Your task to perform on an android device: stop showing notifications on the lock screen Image 0: 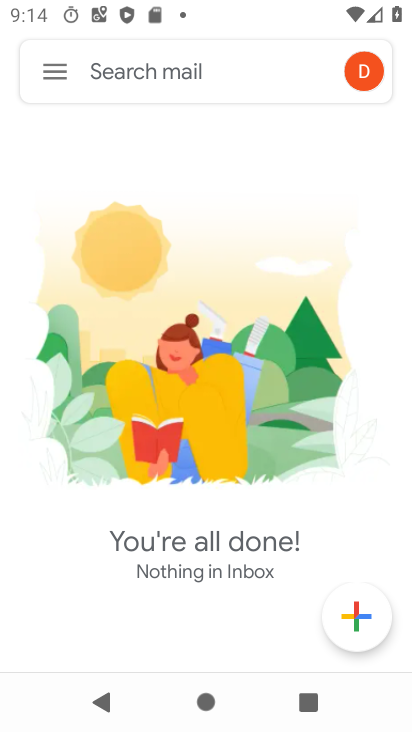
Step 0: press home button
Your task to perform on an android device: stop showing notifications on the lock screen Image 1: 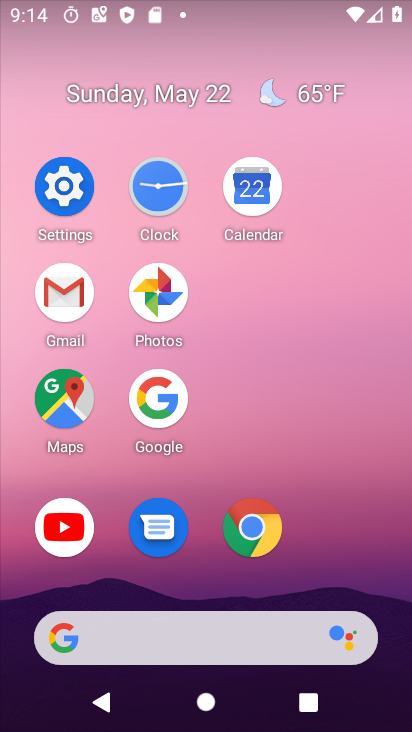
Step 1: click (71, 202)
Your task to perform on an android device: stop showing notifications on the lock screen Image 2: 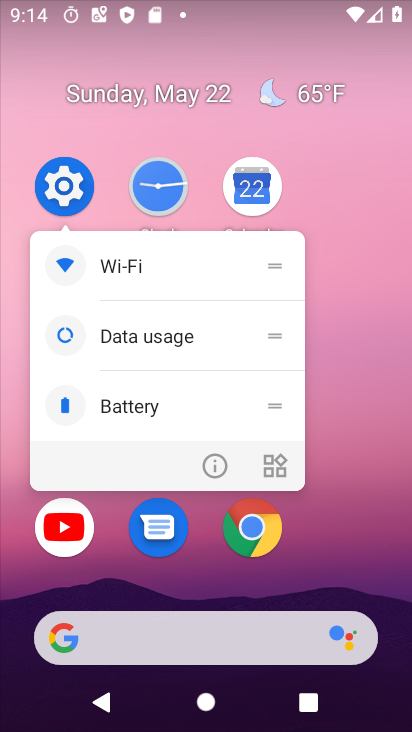
Step 2: click (58, 181)
Your task to perform on an android device: stop showing notifications on the lock screen Image 3: 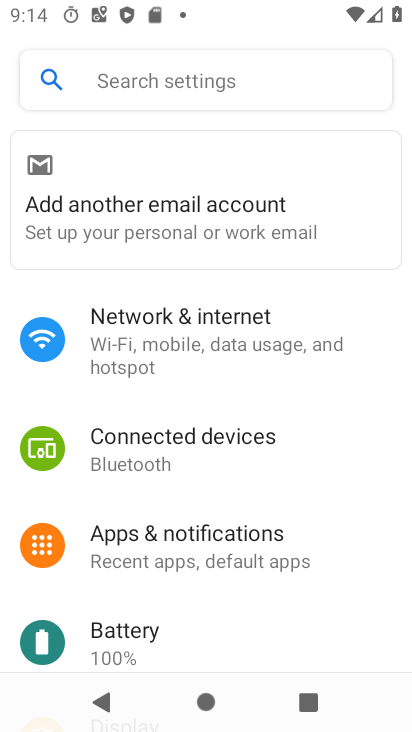
Step 3: drag from (215, 484) to (268, 169)
Your task to perform on an android device: stop showing notifications on the lock screen Image 4: 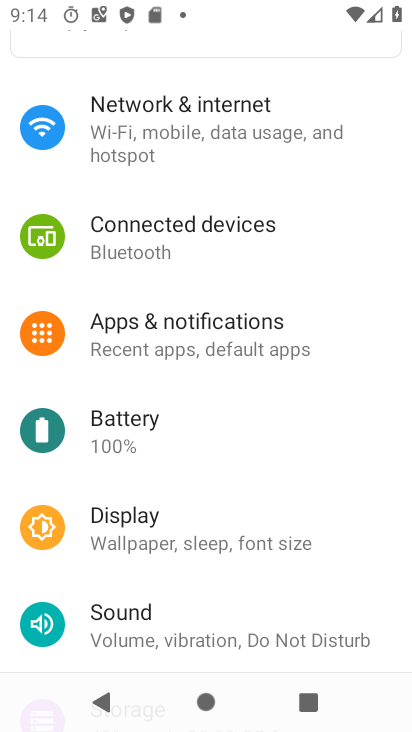
Step 4: click (219, 320)
Your task to perform on an android device: stop showing notifications on the lock screen Image 5: 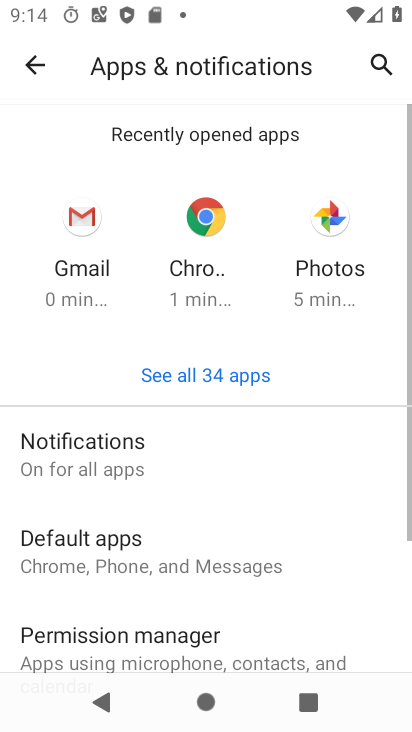
Step 5: click (132, 463)
Your task to perform on an android device: stop showing notifications on the lock screen Image 6: 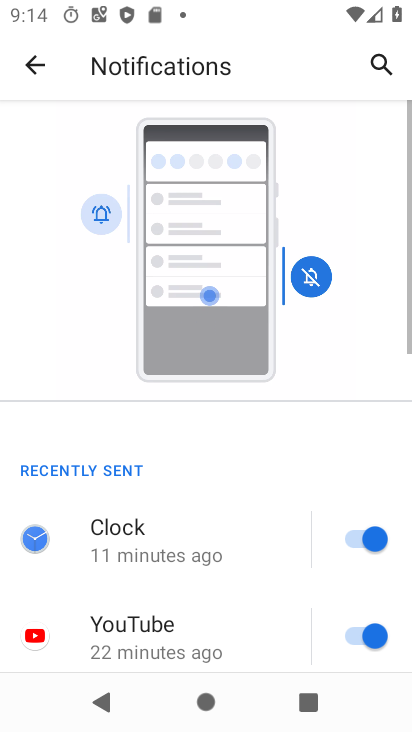
Step 6: click (198, 108)
Your task to perform on an android device: stop showing notifications on the lock screen Image 7: 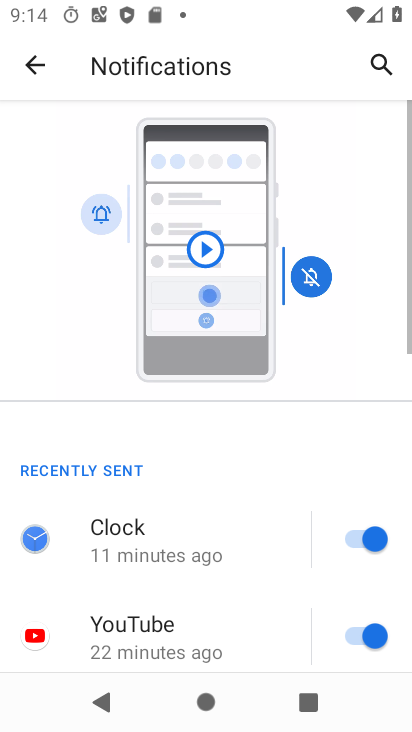
Step 7: drag from (200, 572) to (267, 233)
Your task to perform on an android device: stop showing notifications on the lock screen Image 8: 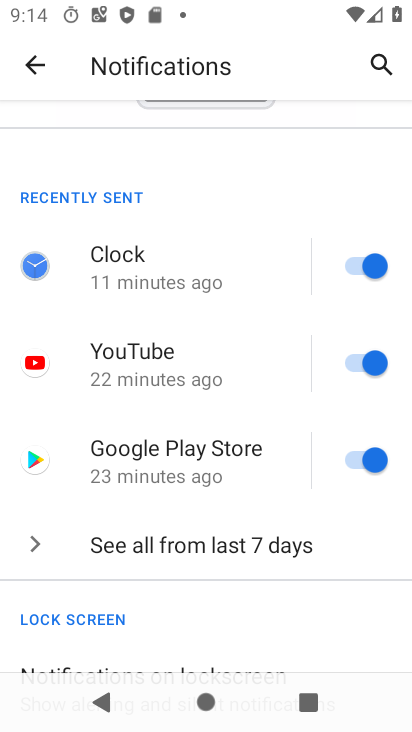
Step 8: drag from (197, 577) to (245, 245)
Your task to perform on an android device: stop showing notifications on the lock screen Image 9: 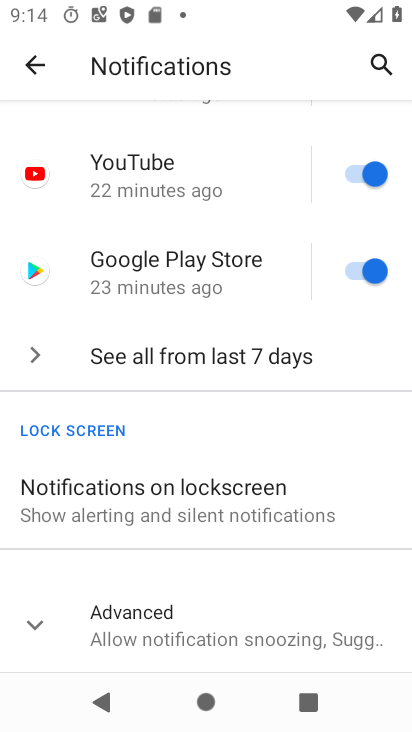
Step 9: click (168, 505)
Your task to perform on an android device: stop showing notifications on the lock screen Image 10: 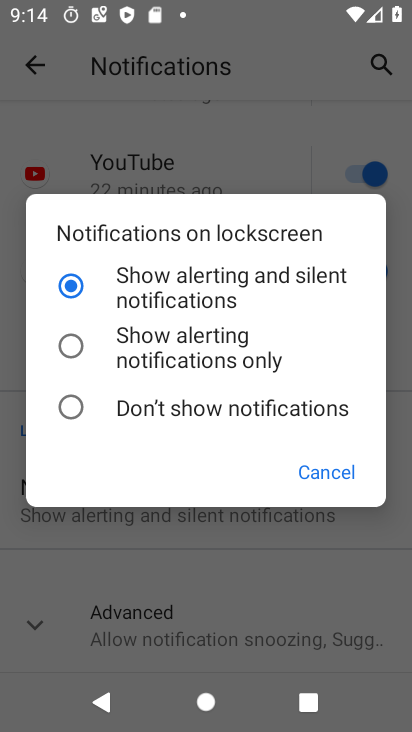
Step 10: click (172, 402)
Your task to perform on an android device: stop showing notifications on the lock screen Image 11: 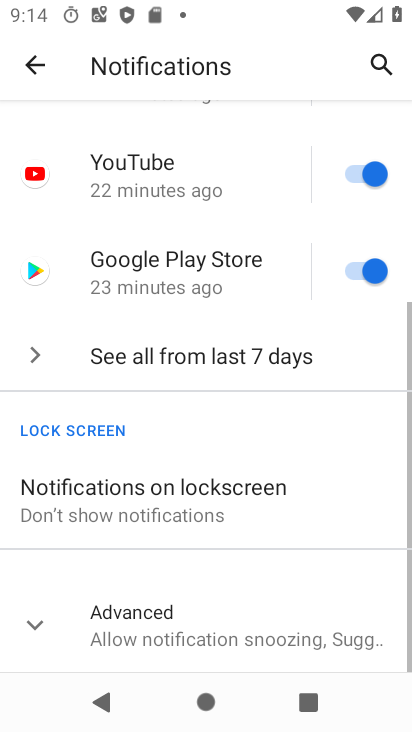
Step 11: task complete